Your task to perform on an android device: Open the map Image 0: 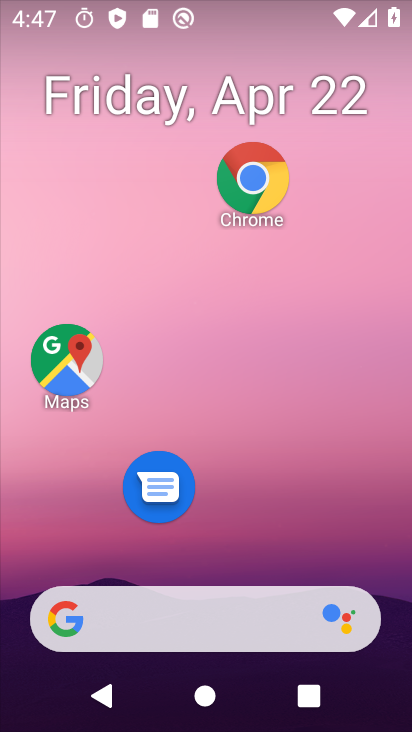
Step 0: drag from (209, 670) to (189, 205)
Your task to perform on an android device: Open the map Image 1: 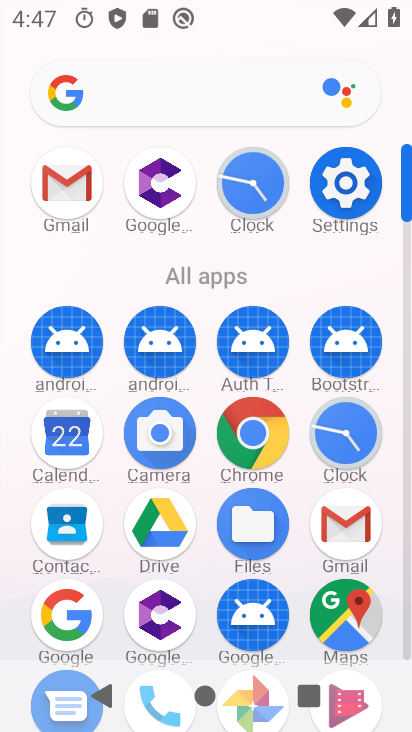
Step 1: click (355, 605)
Your task to perform on an android device: Open the map Image 2: 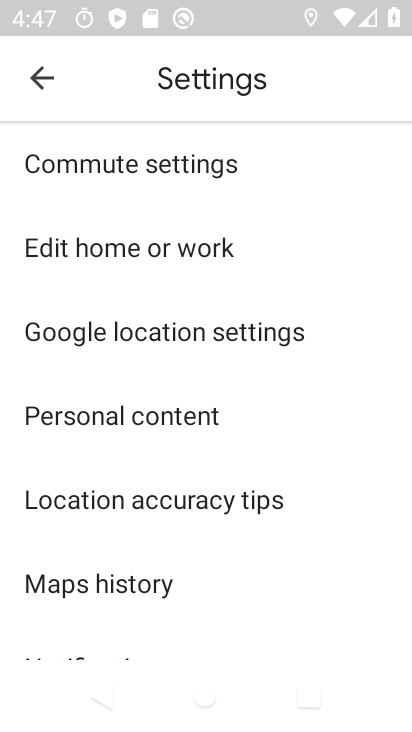
Step 2: click (44, 79)
Your task to perform on an android device: Open the map Image 3: 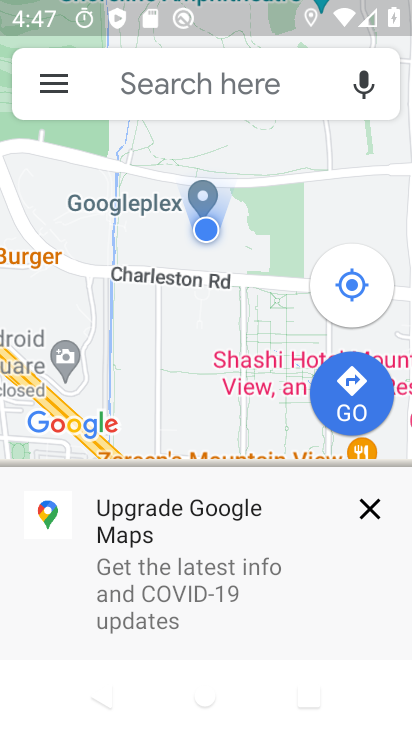
Step 3: task complete